Your task to perform on an android device: toggle javascript in the chrome app Image 0: 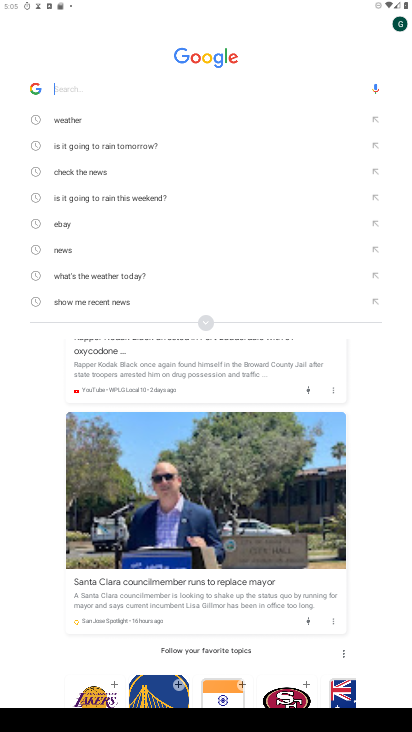
Step 0: press home button
Your task to perform on an android device: toggle javascript in the chrome app Image 1: 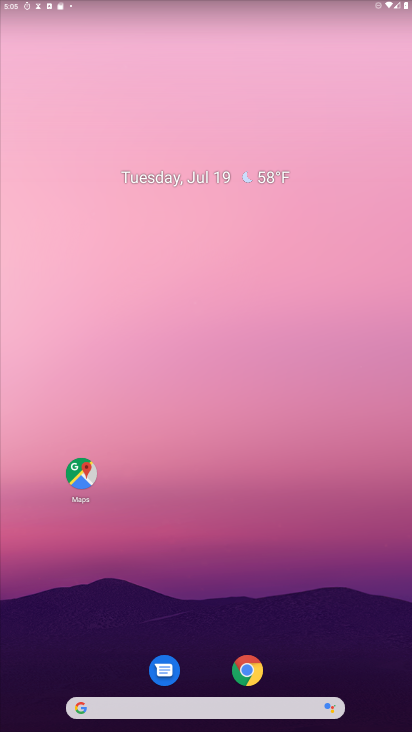
Step 1: drag from (179, 701) to (225, 0)
Your task to perform on an android device: toggle javascript in the chrome app Image 2: 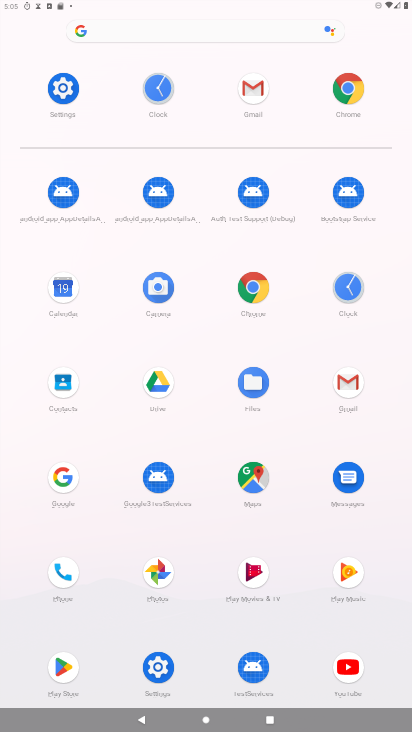
Step 2: click (258, 283)
Your task to perform on an android device: toggle javascript in the chrome app Image 3: 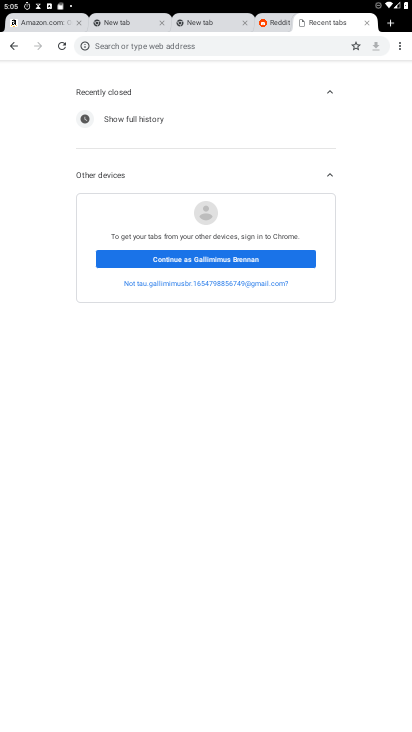
Step 3: drag from (399, 41) to (313, 206)
Your task to perform on an android device: toggle javascript in the chrome app Image 4: 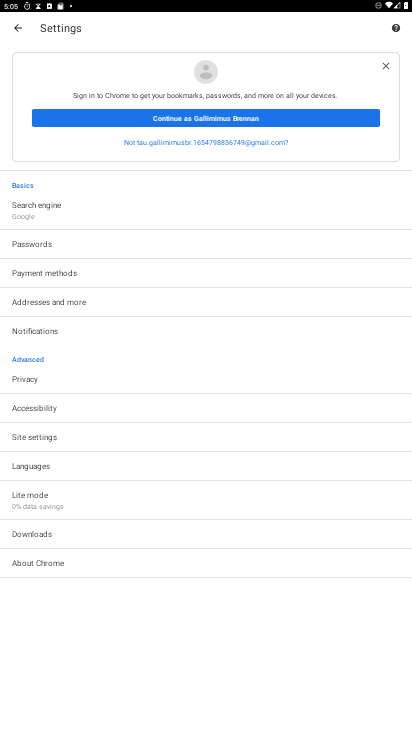
Step 4: click (38, 437)
Your task to perform on an android device: toggle javascript in the chrome app Image 5: 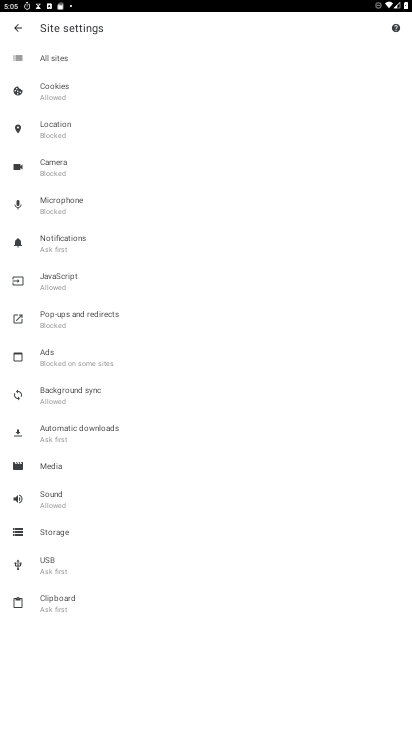
Step 5: click (78, 284)
Your task to perform on an android device: toggle javascript in the chrome app Image 6: 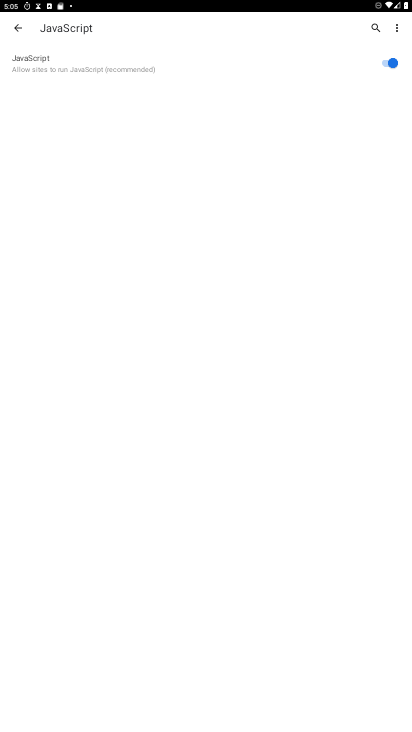
Step 6: click (389, 64)
Your task to perform on an android device: toggle javascript in the chrome app Image 7: 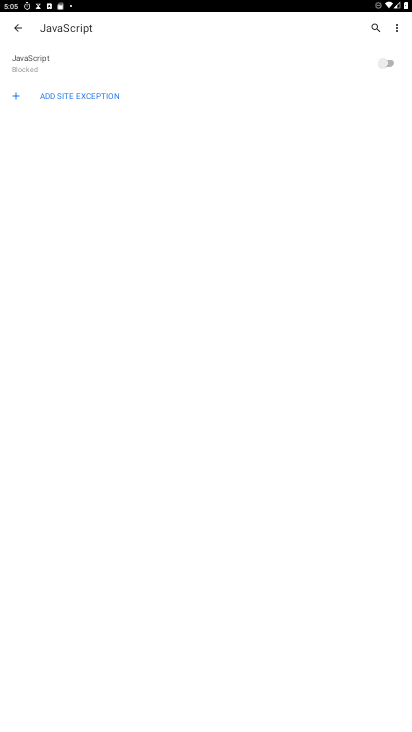
Step 7: task complete